Your task to perform on an android device: open a bookmark in the chrome app Image 0: 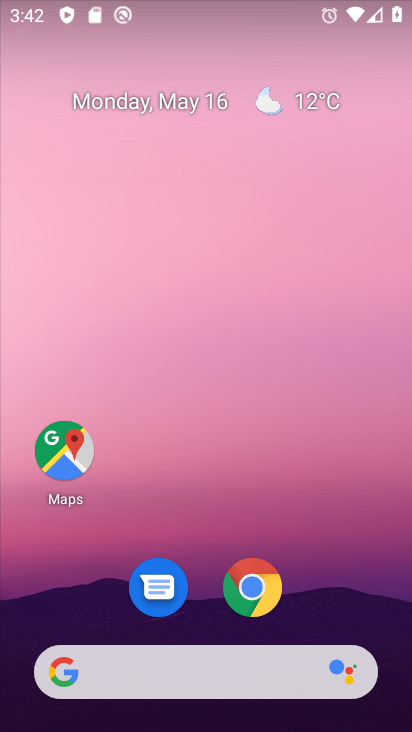
Step 0: click (278, 590)
Your task to perform on an android device: open a bookmark in the chrome app Image 1: 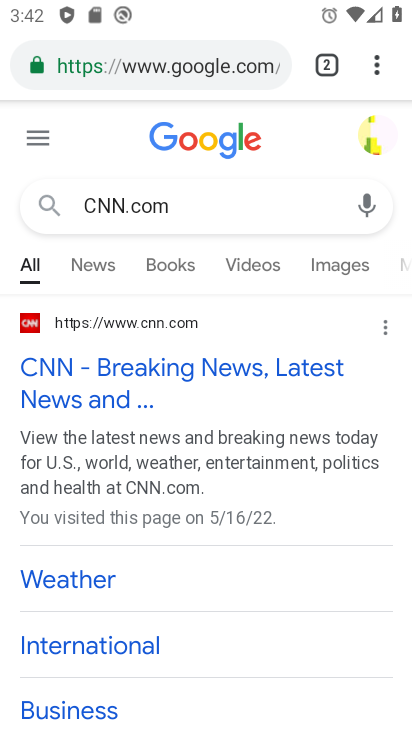
Step 1: click (370, 61)
Your task to perform on an android device: open a bookmark in the chrome app Image 2: 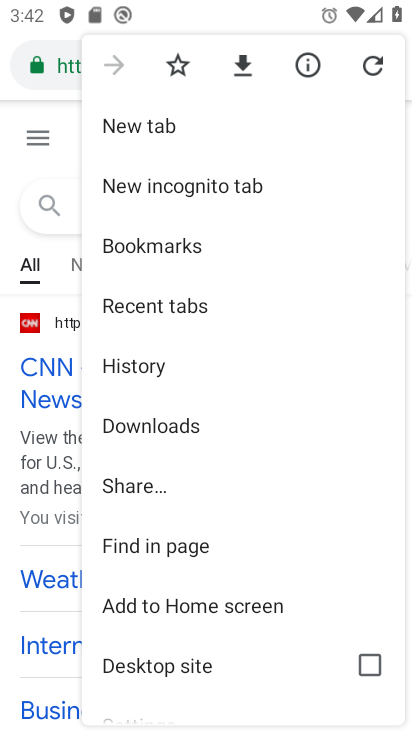
Step 2: click (133, 241)
Your task to perform on an android device: open a bookmark in the chrome app Image 3: 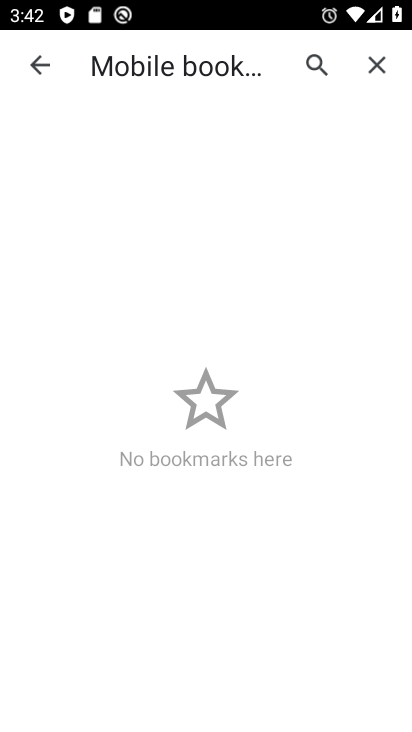
Step 3: task complete